Your task to perform on an android device: see sites visited before in the chrome app Image 0: 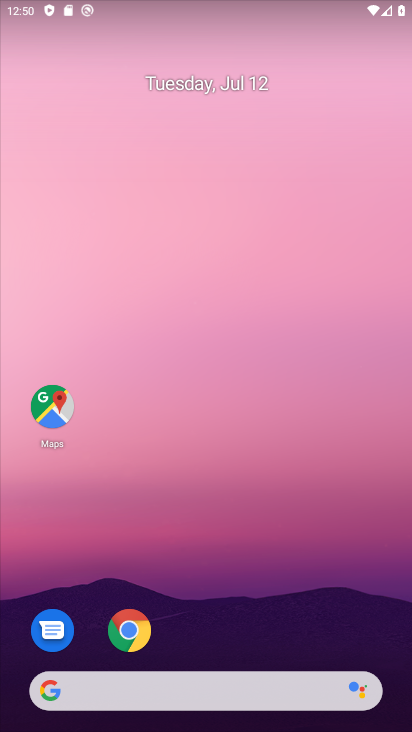
Step 0: click (128, 636)
Your task to perform on an android device: see sites visited before in the chrome app Image 1: 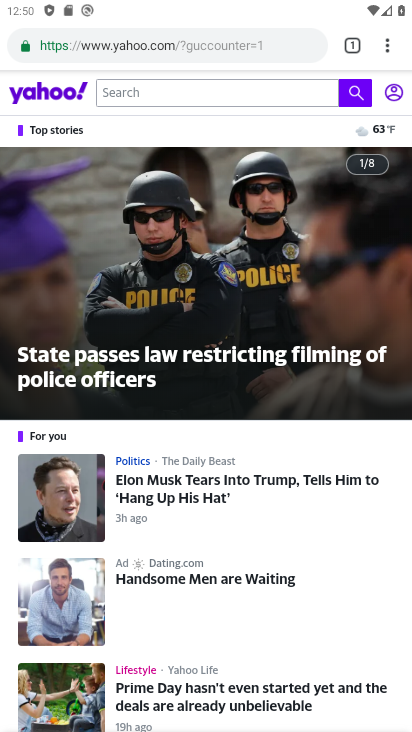
Step 1: click (383, 52)
Your task to perform on an android device: see sites visited before in the chrome app Image 2: 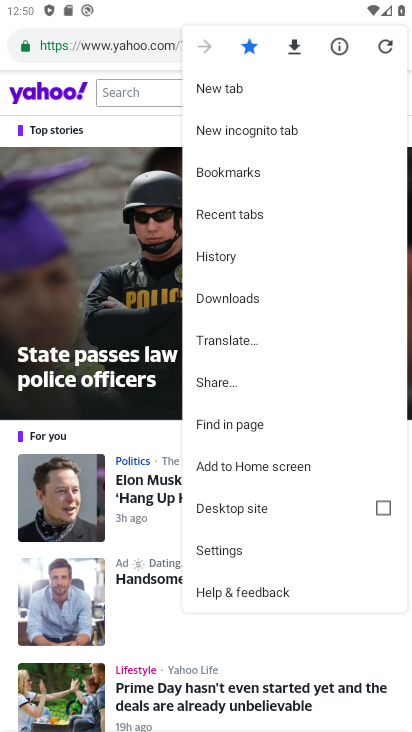
Step 2: click (224, 255)
Your task to perform on an android device: see sites visited before in the chrome app Image 3: 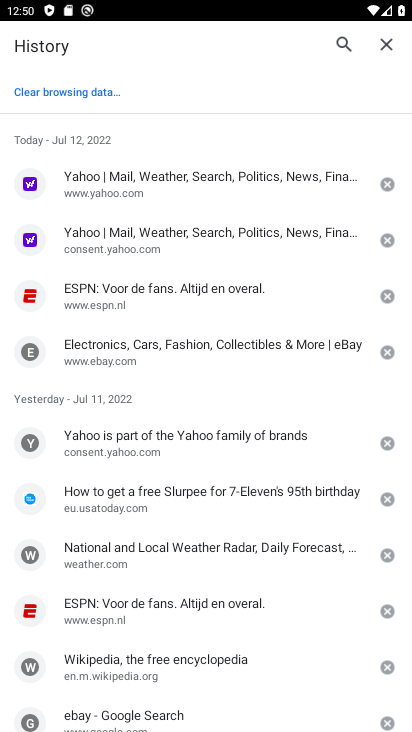
Step 3: task complete